Your task to perform on an android device: manage bookmarks in the chrome app Image 0: 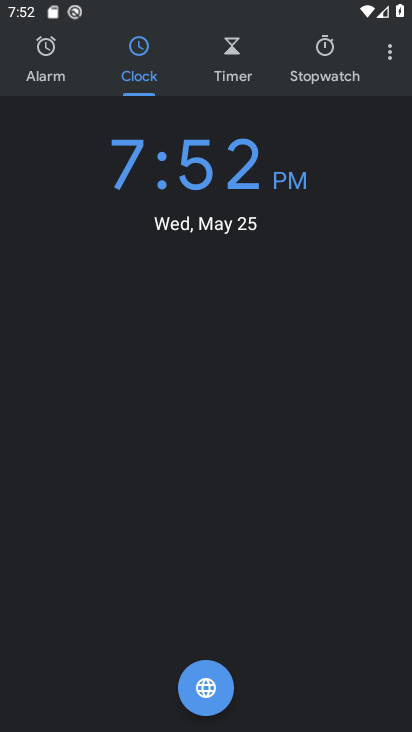
Step 0: press back button
Your task to perform on an android device: manage bookmarks in the chrome app Image 1: 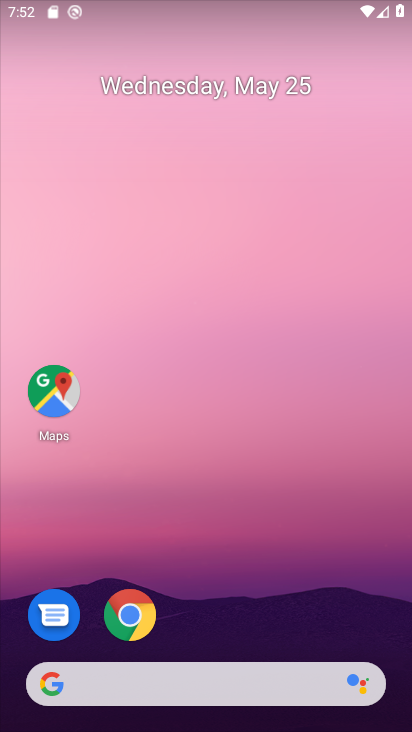
Step 1: drag from (187, 553) to (203, 10)
Your task to perform on an android device: manage bookmarks in the chrome app Image 2: 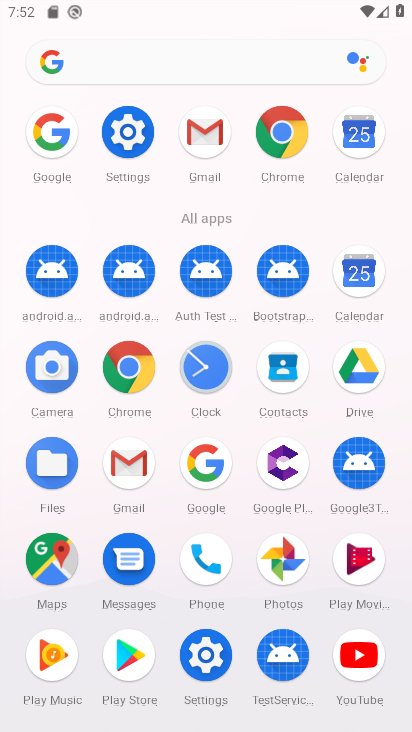
Step 2: click (286, 128)
Your task to perform on an android device: manage bookmarks in the chrome app Image 3: 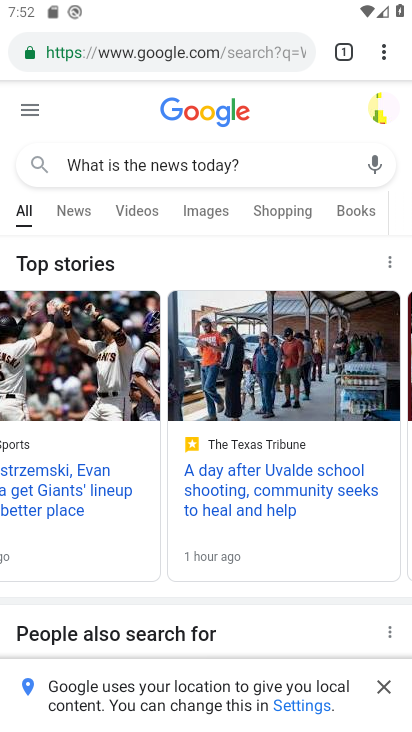
Step 3: drag from (386, 52) to (254, 198)
Your task to perform on an android device: manage bookmarks in the chrome app Image 4: 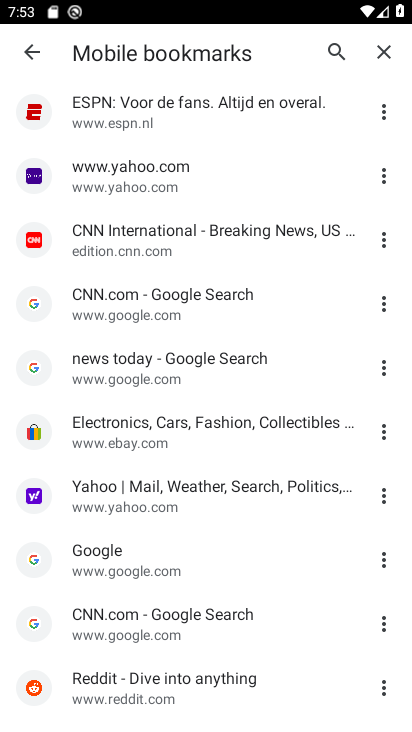
Step 4: click (386, 117)
Your task to perform on an android device: manage bookmarks in the chrome app Image 5: 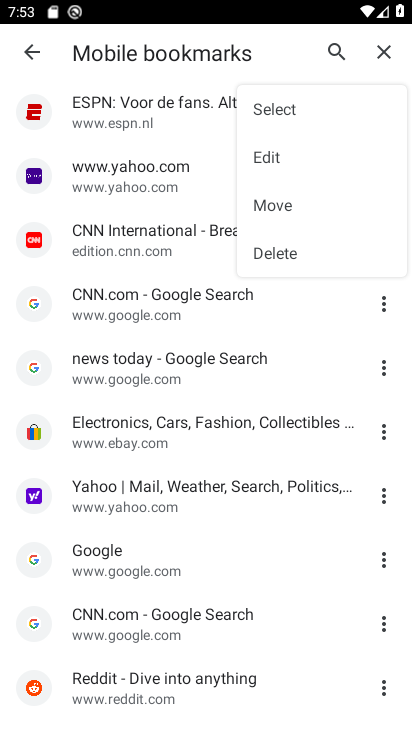
Step 5: click (382, 112)
Your task to perform on an android device: manage bookmarks in the chrome app Image 6: 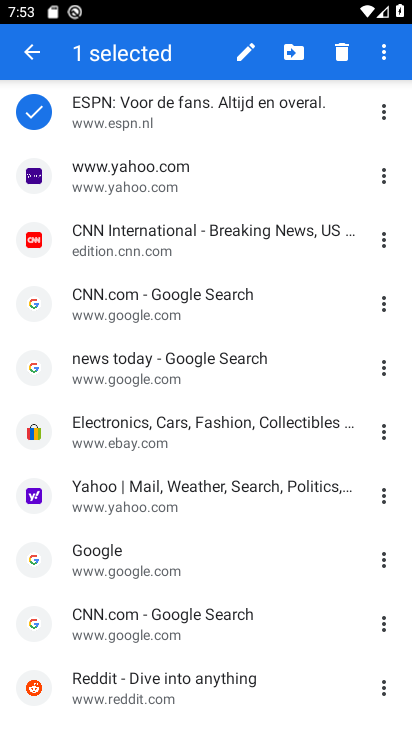
Step 6: click (346, 42)
Your task to perform on an android device: manage bookmarks in the chrome app Image 7: 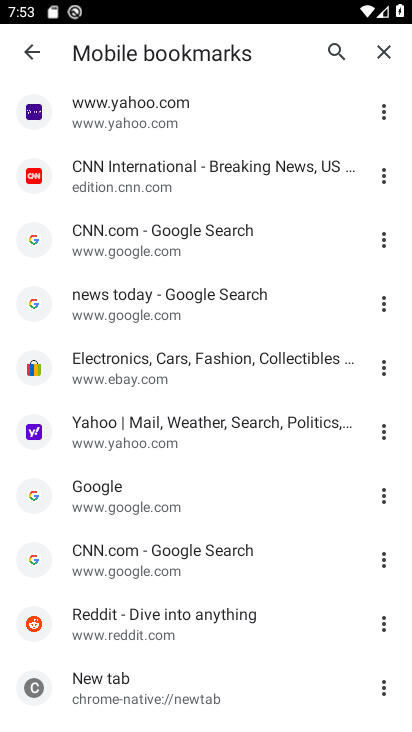
Step 7: task complete